Your task to perform on an android device: Go to privacy settings Image 0: 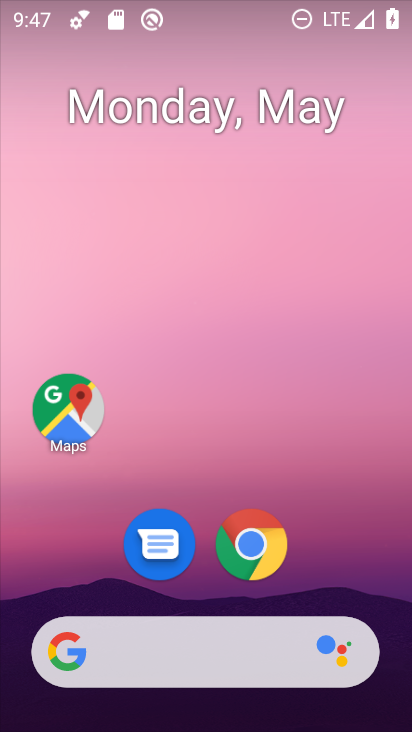
Step 0: drag from (360, 558) to (320, 101)
Your task to perform on an android device: Go to privacy settings Image 1: 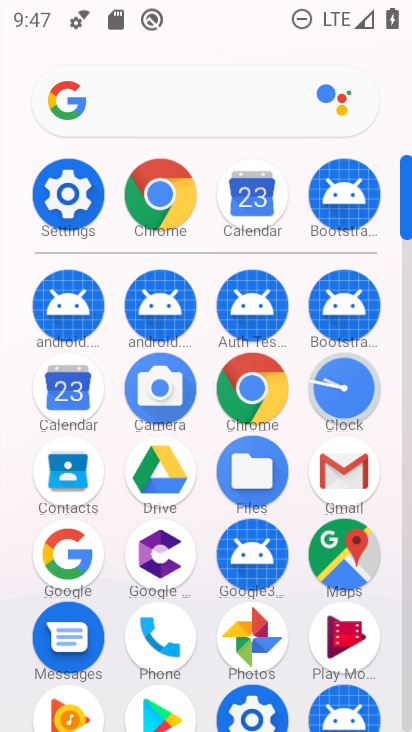
Step 1: click (68, 201)
Your task to perform on an android device: Go to privacy settings Image 2: 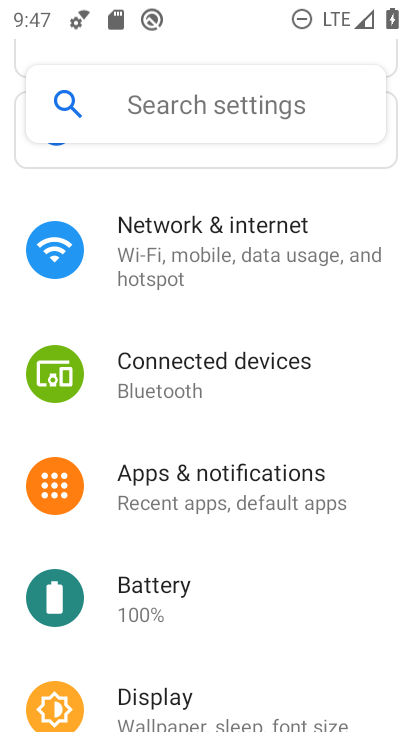
Step 2: drag from (243, 624) to (277, 317)
Your task to perform on an android device: Go to privacy settings Image 3: 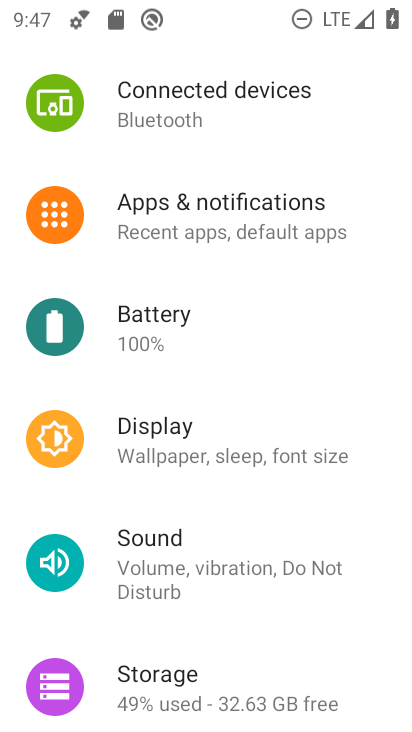
Step 3: drag from (238, 616) to (240, 328)
Your task to perform on an android device: Go to privacy settings Image 4: 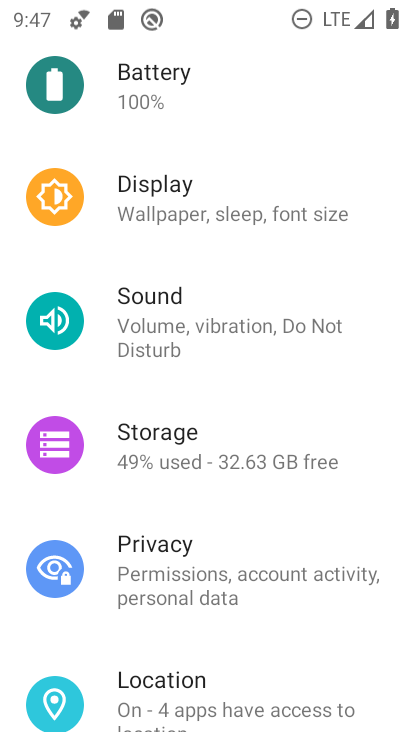
Step 4: click (244, 565)
Your task to perform on an android device: Go to privacy settings Image 5: 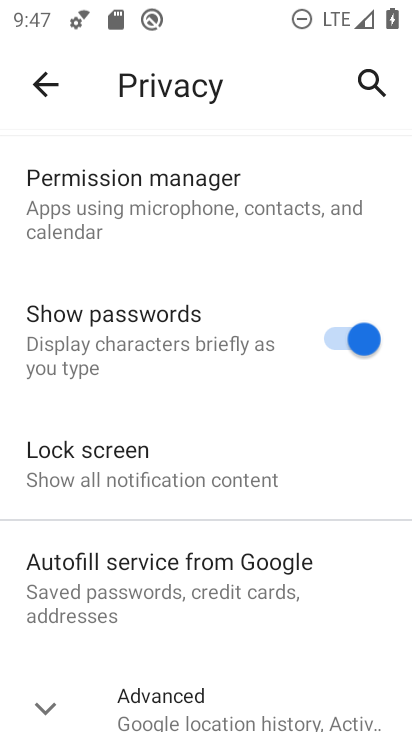
Step 5: task complete